Your task to perform on an android device: Go to notification settings Image 0: 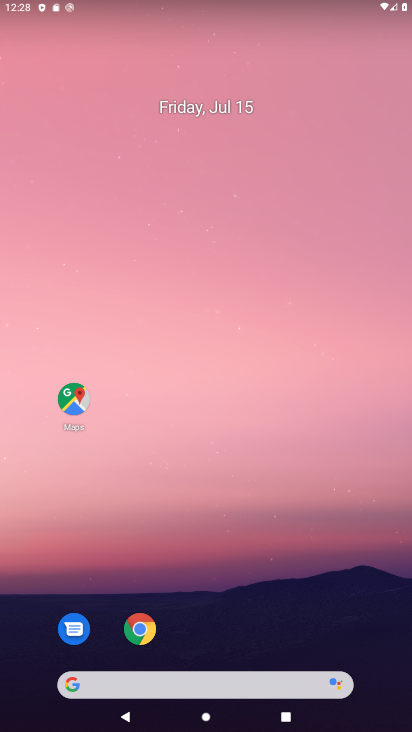
Step 0: drag from (211, 656) to (238, 103)
Your task to perform on an android device: Go to notification settings Image 1: 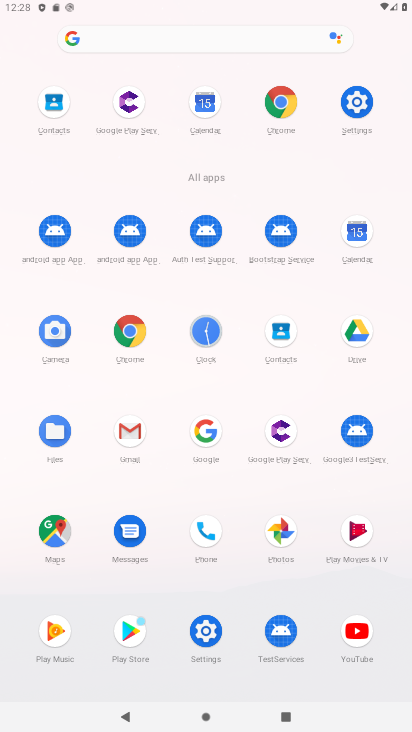
Step 1: click (217, 631)
Your task to perform on an android device: Go to notification settings Image 2: 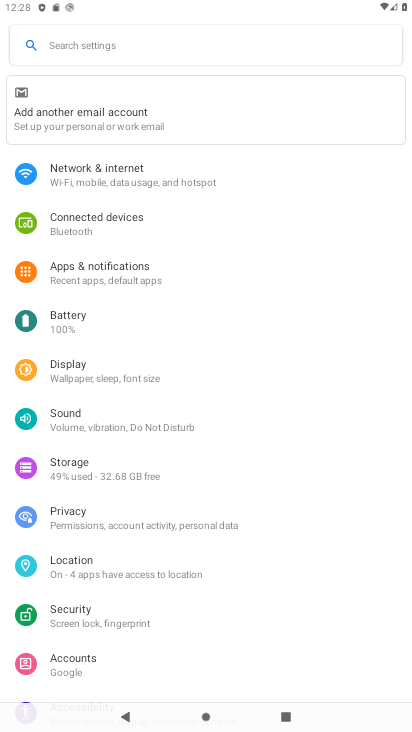
Step 2: click (115, 278)
Your task to perform on an android device: Go to notification settings Image 3: 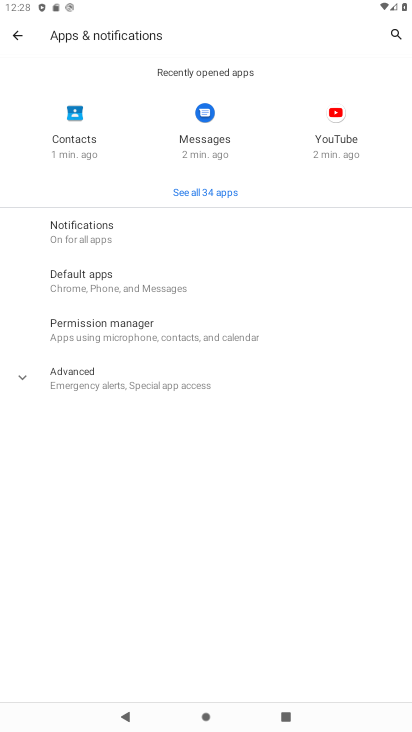
Step 3: click (119, 234)
Your task to perform on an android device: Go to notification settings Image 4: 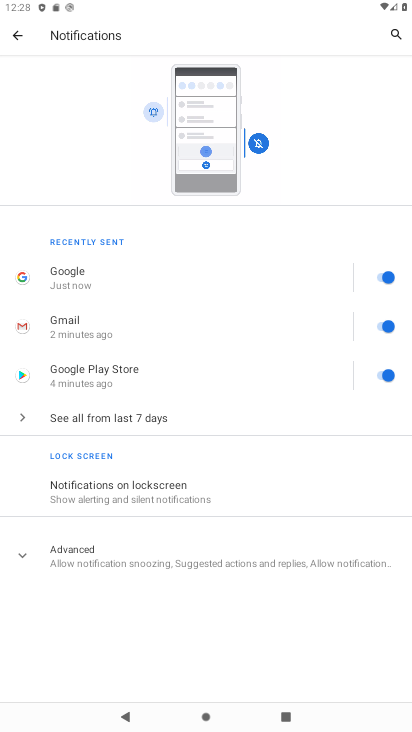
Step 4: task complete